Your task to perform on an android device: turn on sleep mode Image 0: 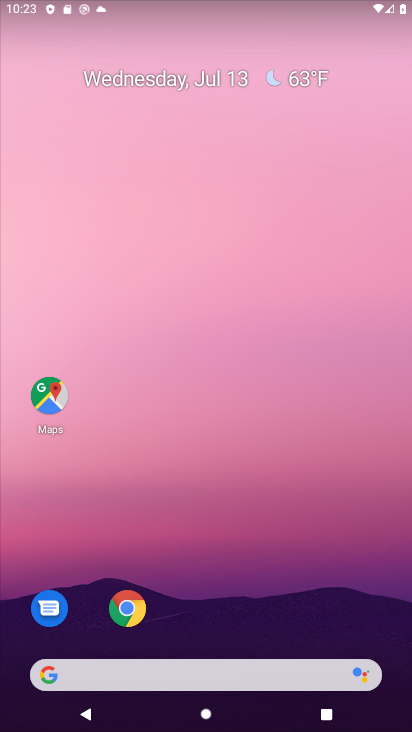
Step 0: drag from (221, 648) to (269, 196)
Your task to perform on an android device: turn on sleep mode Image 1: 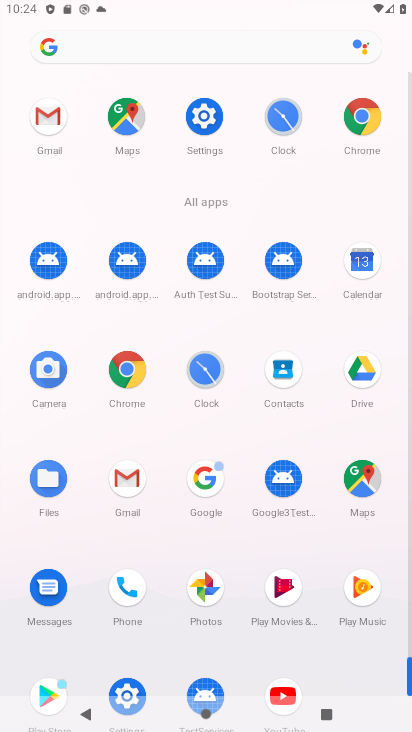
Step 1: click (120, 677)
Your task to perform on an android device: turn on sleep mode Image 2: 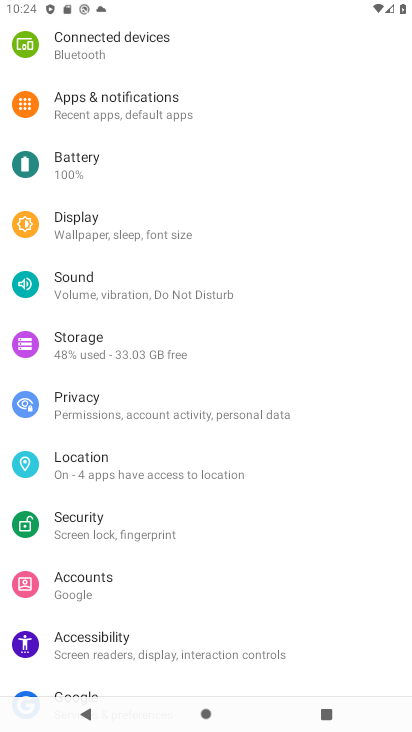
Step 2: click (92, 219)
Your task to perform on an android device: turn on sleep mode Image 3: 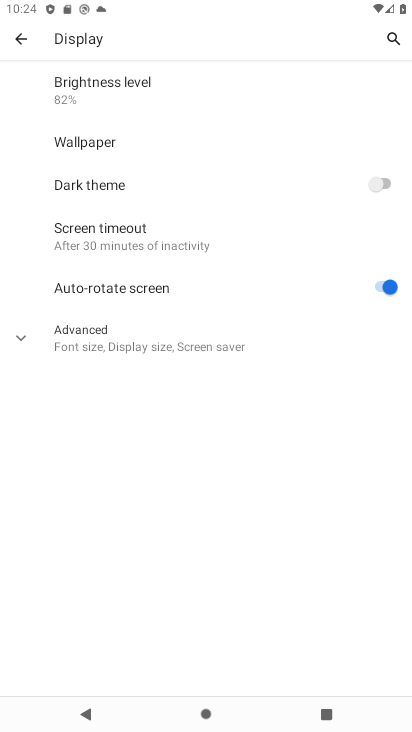
Step 3: click (134, 329)
Your task to perform on an android device: turn on sleep mode Image 4: 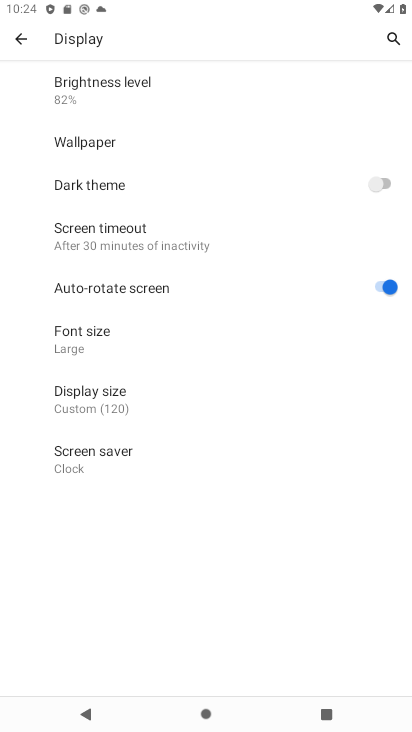
Step 4: task complete